Your task to perform on an android device: Search for pizza restaurants on Maps Image 0: 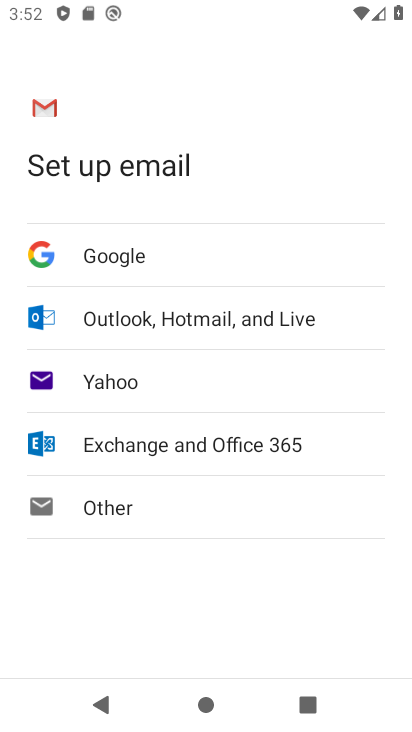
Step 0: press home button
Your task to perform on an android device: Search for pizza restaurants on Maps Image 1: 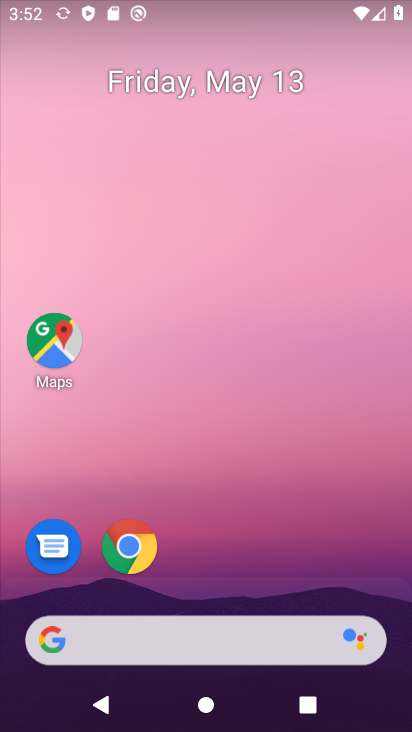
Step 1: click (53, 341)
Your task to perform on an android device: Search for pizza restaurants on Maps Image 2: 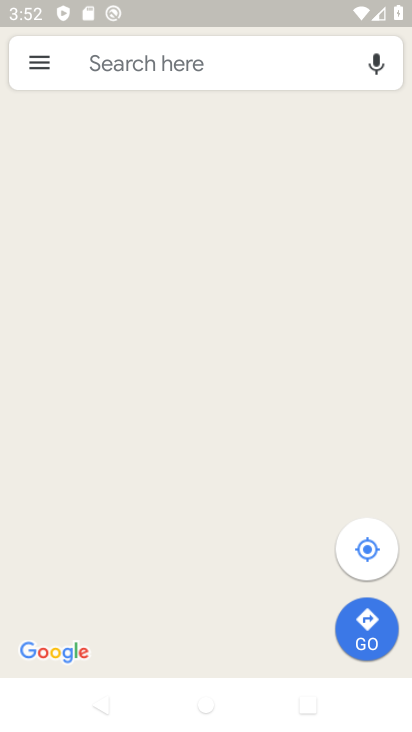
Step 2: click (177, 73)
Your task to perform on an android device: Search for pizza restaurants on Maps Image 3: 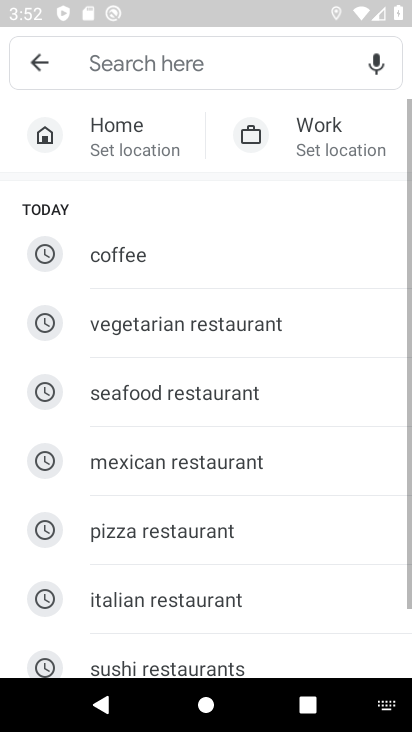
Step 3: type "Pizza restaurants"
Your task to perform on an android device: Search for pizza restaurants on Maps Image 4: 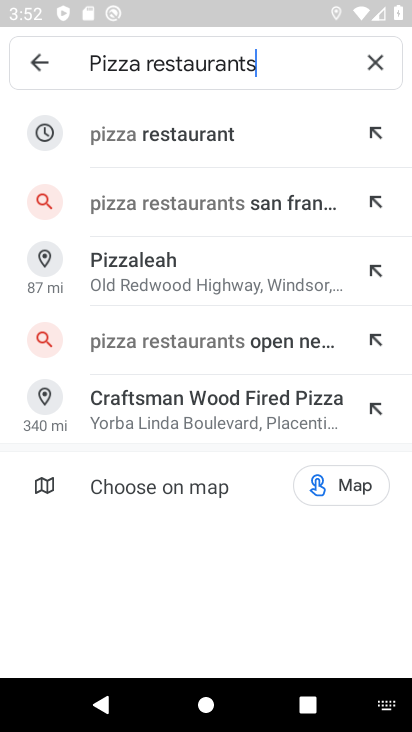
Step 4: click (184, 144)
Your task to perform on an android device: Search for pizza restaurants on Maps Image 5: 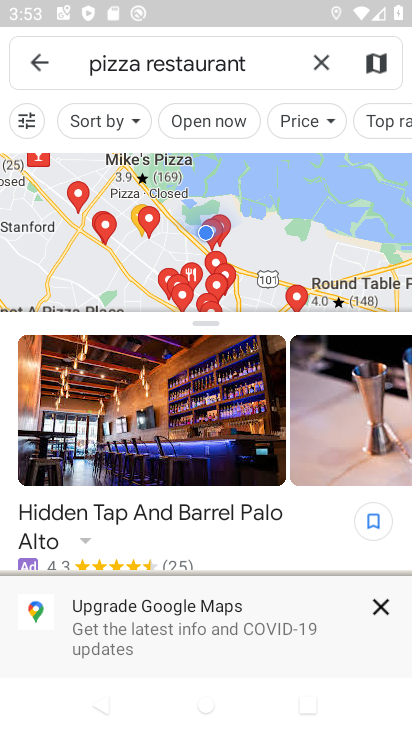
Step 5: click (383, 609)
Your task to perform on an android device: Search for pizza restaurants on Maps Image 6: 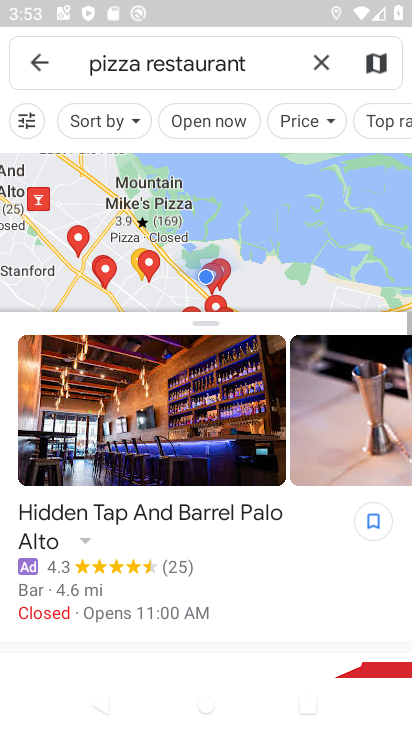
Step 6: task complete